Your task to perform on an android device: Add apple airpods pro to the cart on walmart.com Image 0: 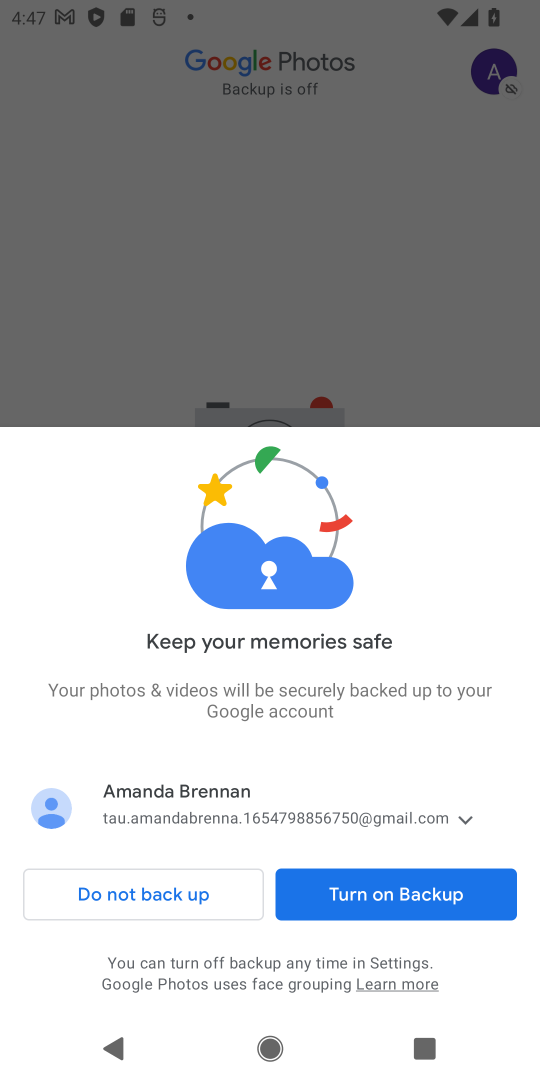
Step 0: press home button
Your task to perform on an android device: Add apple airpods pro to the cart on walmart.com Image 1: 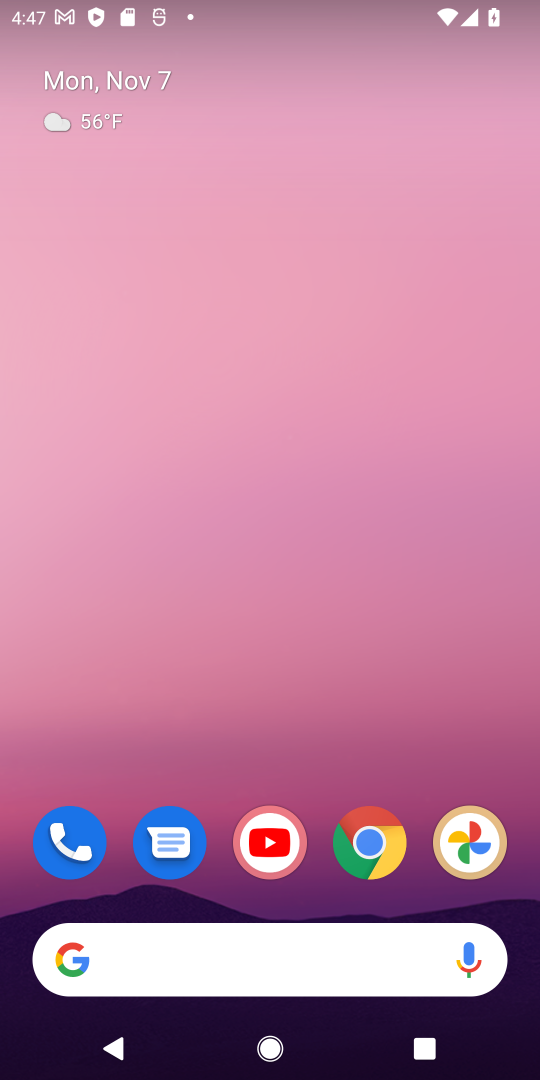
Step 1: click (372, 827)
Your task to perform on an android device: Add apple airpods pro to the cart on walmart.com Image 2: 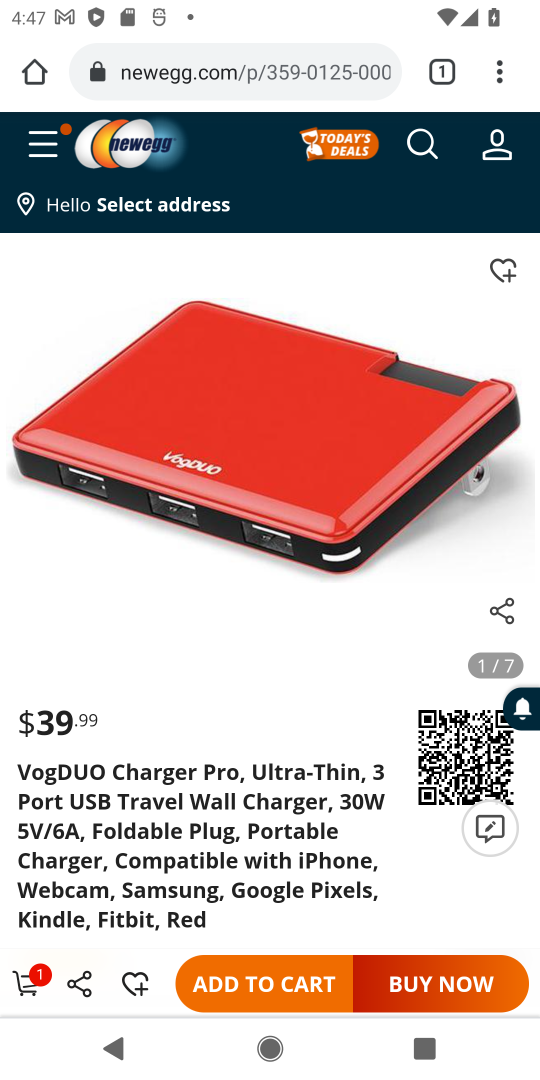
Step 2: click (282, 82)
Your task to perform on an android device: Add apple airpods pro to the cart on walmart.com Image 3: 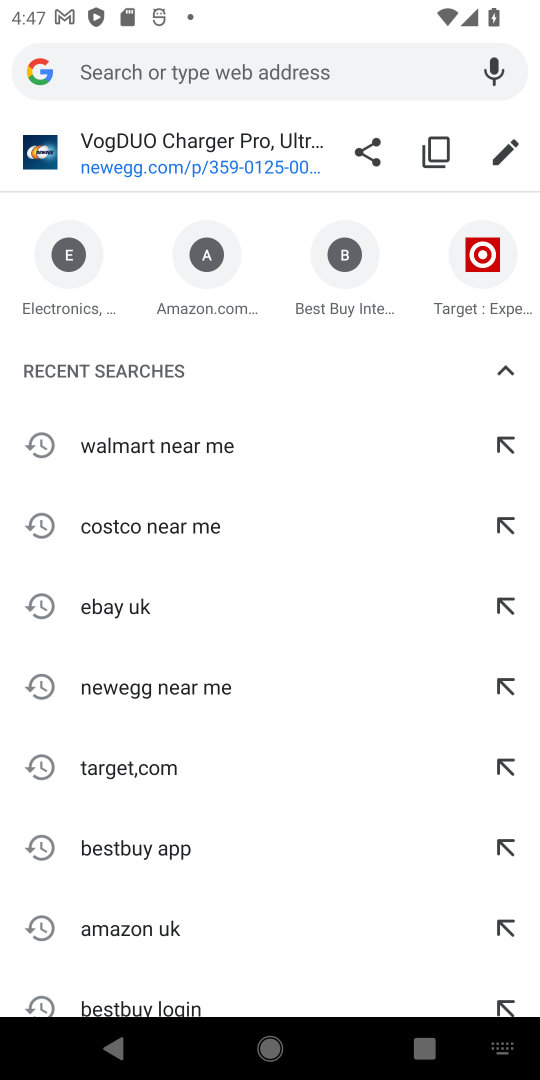
Step 3: click (94, 446)
Your task to perform on an android device: Add apple airpods pro to the cart on walmart.com Image 4: 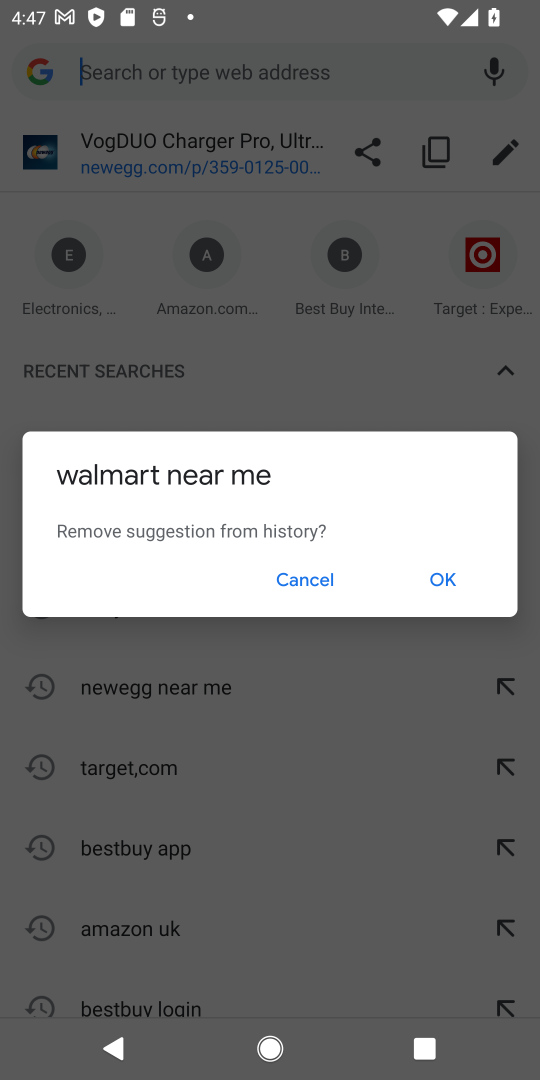
Step 4: click (326, 581)
Your task to perform on an android device: Add apple airpods pro to the cart on walmart.com Image 5: 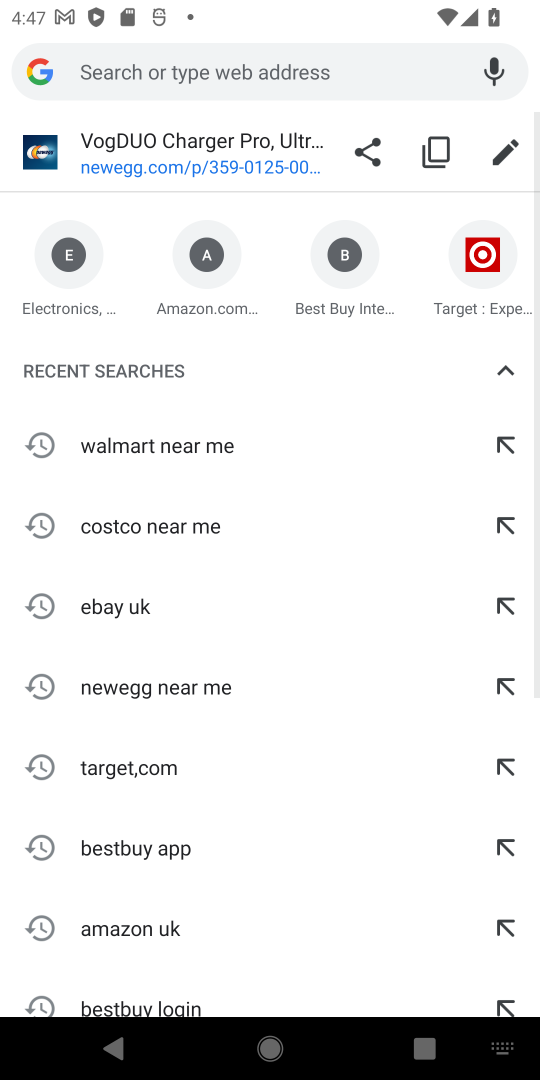
Step 5: click (152, 446)
Your task to perform on an android device: Add apple airpods pro to the cart on walmart.com Image 6: 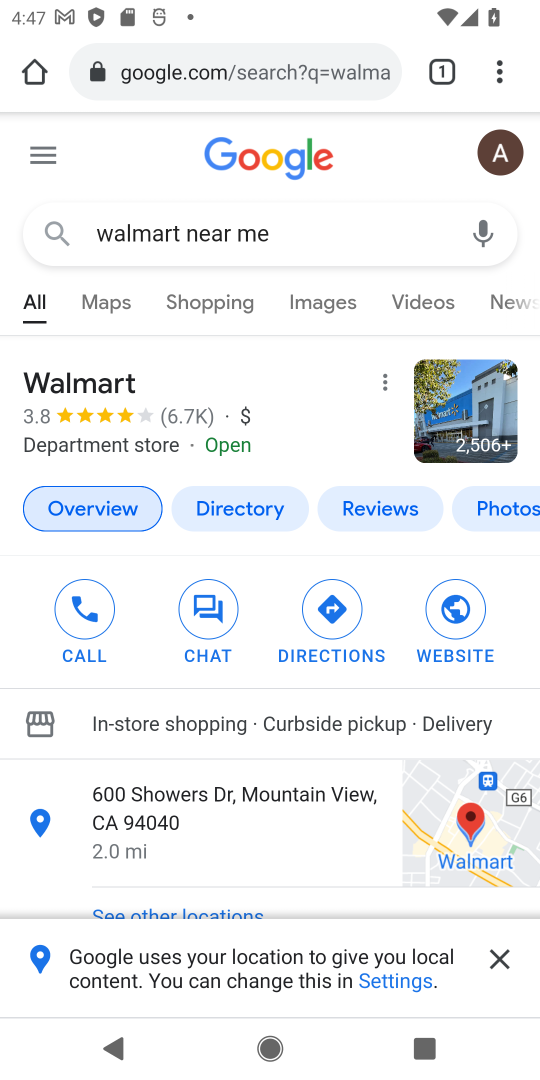
Step 6: drag from (302, 858) to (357, 91)
Your task to perform on an android device: Add apple airpods pro to the cart on walmart.com Image 7: 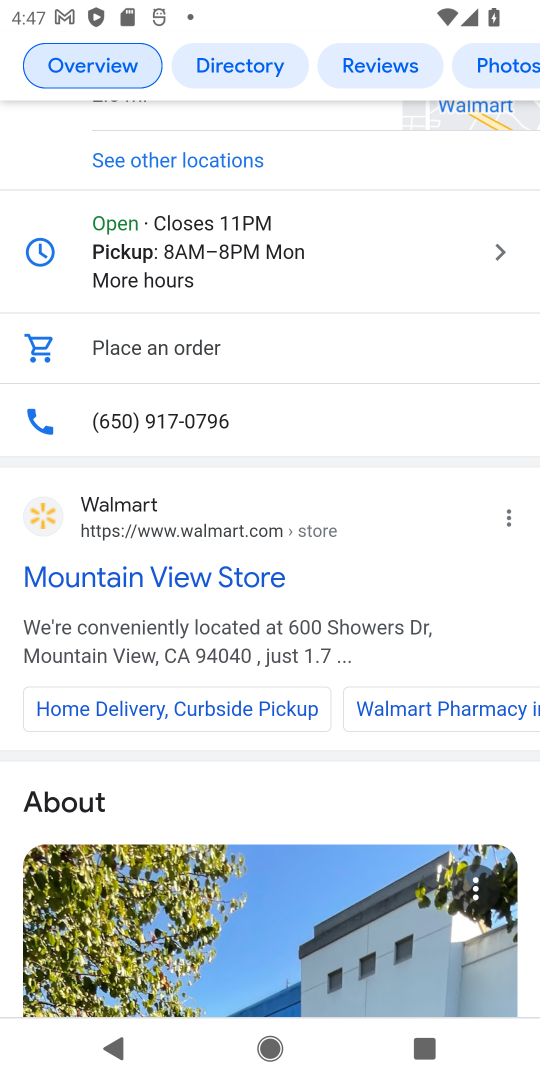
Step 7: click (121, 498)
Your task to perform on an android device: Add apple airpods pro to the cart on walmart.com Image 8: 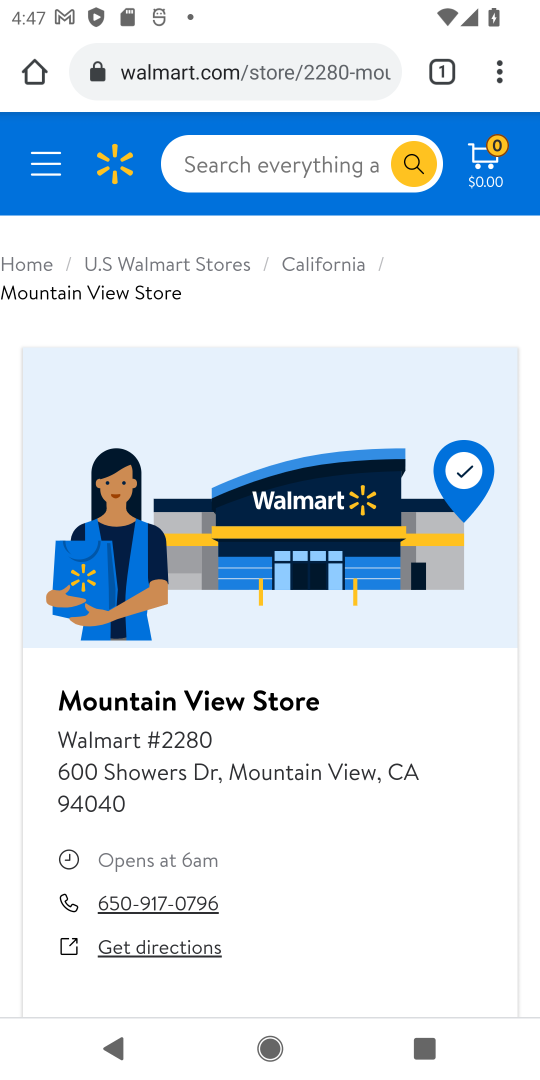
Step 8: click (312, 164)
Your task to perform on an android device: Add apple airpods pro to the cart on walmart.com Image 9: 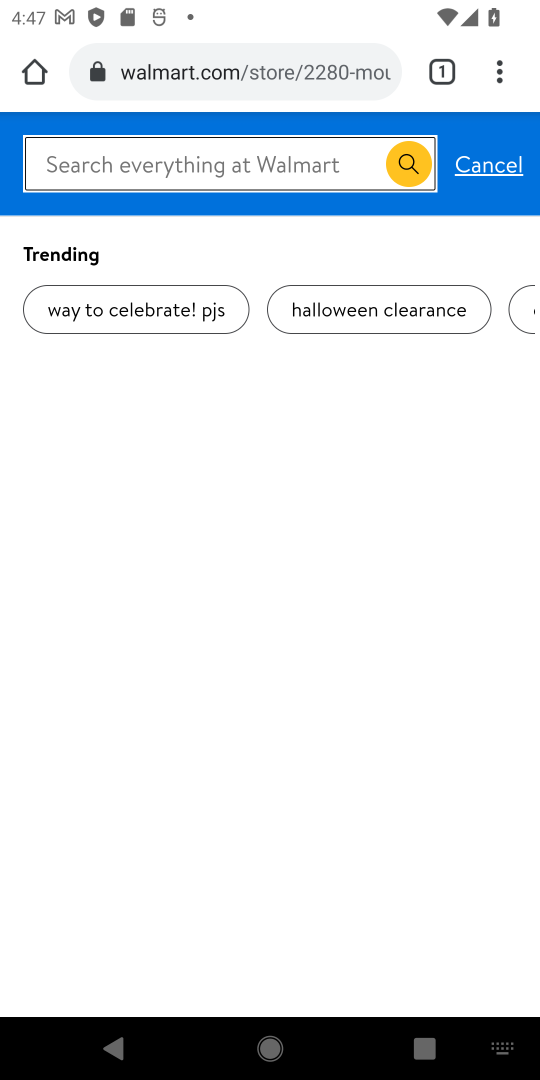
Step 9: type "apple airpods pro"
Your task to perform on an android device: Add apple airpods pro to the cart on walmart.com Image 10: 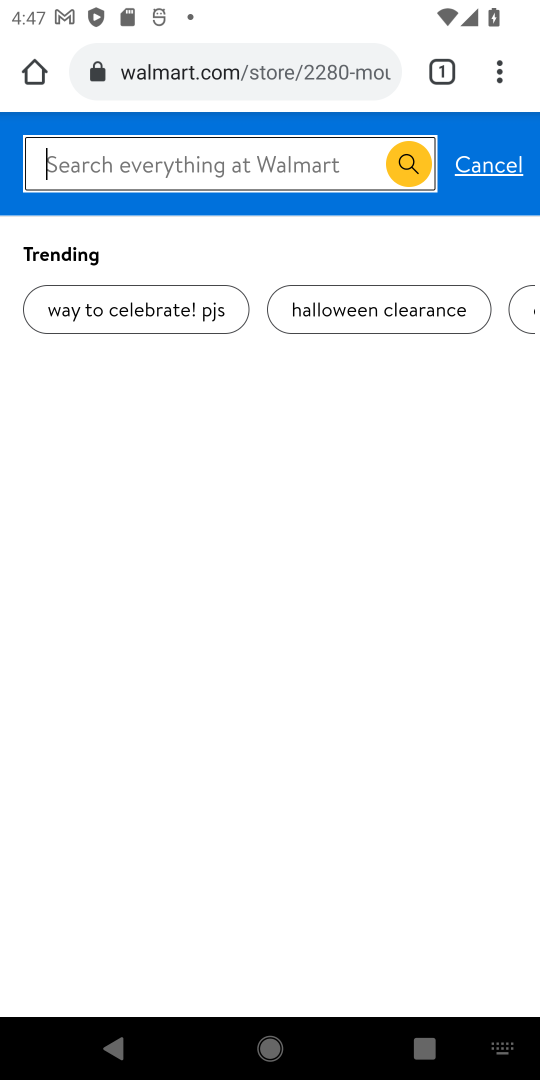
Step 10: press enter
Your task to perform on an android device: Add apple airpods pro to the cart on walmart.com Image 11: 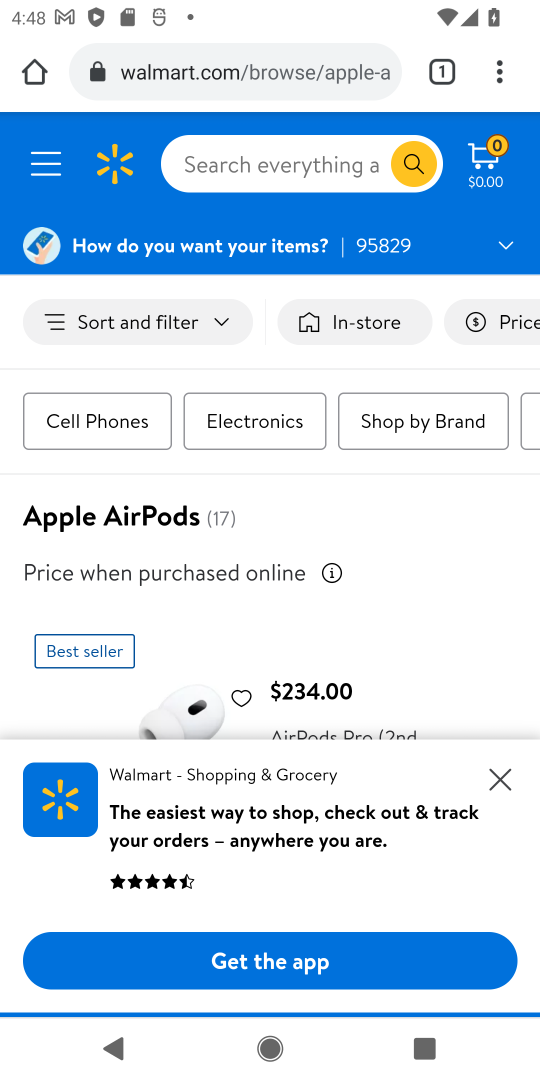
Step 11: click (512, 774)
Your task to perform on an android device: Add apple airpods pro to the cart on walmart.com Image 12: 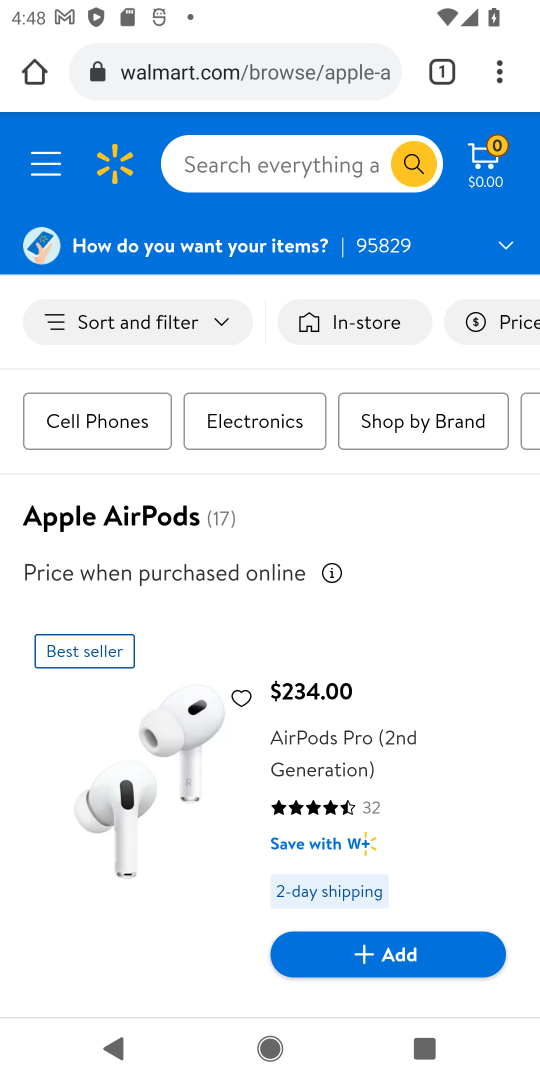
Step 12: drag from (380, 820) to (488, 617)
Your task to perform on an android device: Add apple airpods pro to the cart on walmart.com Image 13: 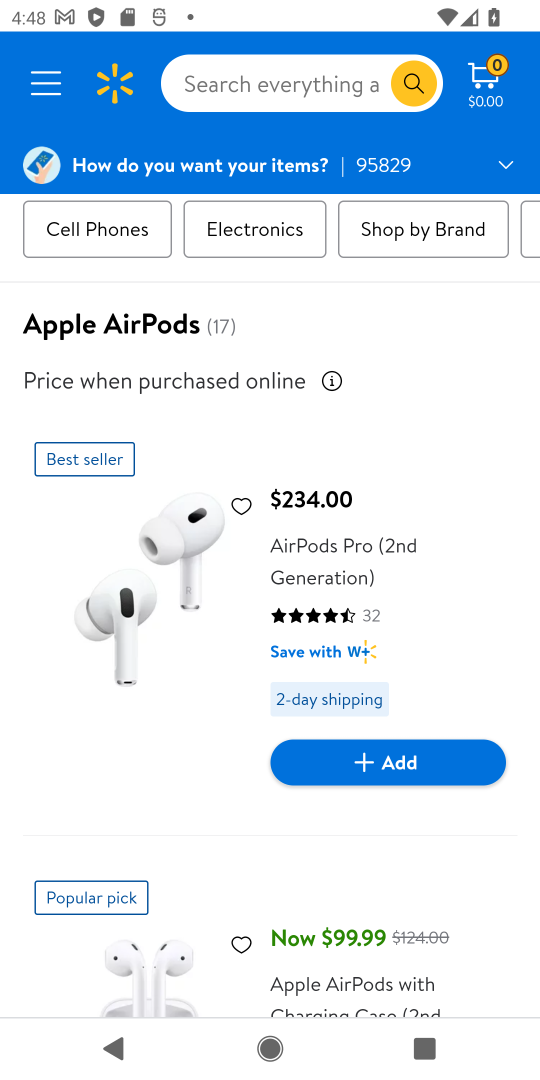
Step 13: click (402, 762)
Your task to perform on an android device: Add apple airpods pro to the cart on walmart.com Image 14: 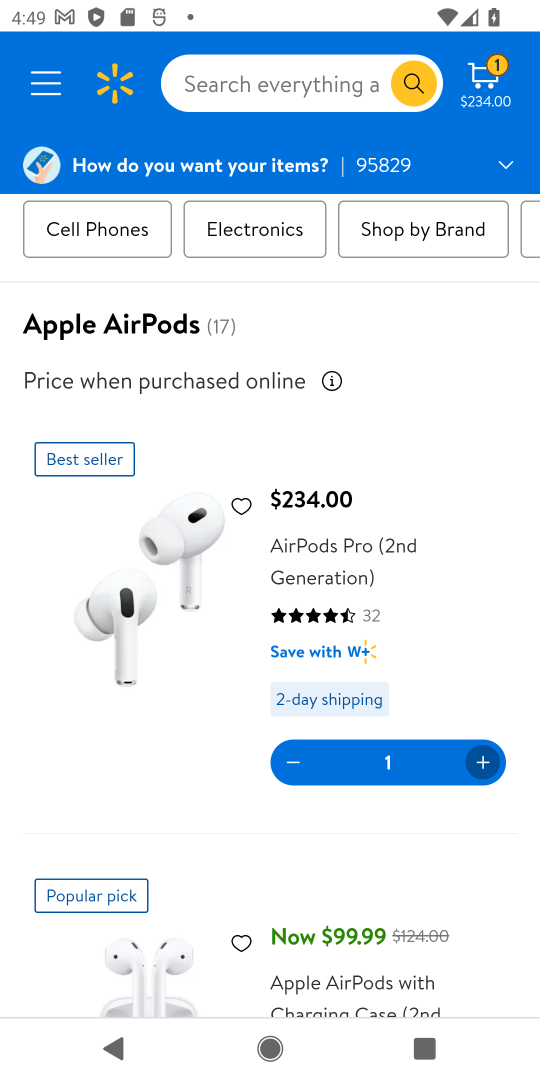
Step 14: click (481, 74)
Your task to perform on an android device: Add apple airpods pro to the cart on walmart.com Image 15: 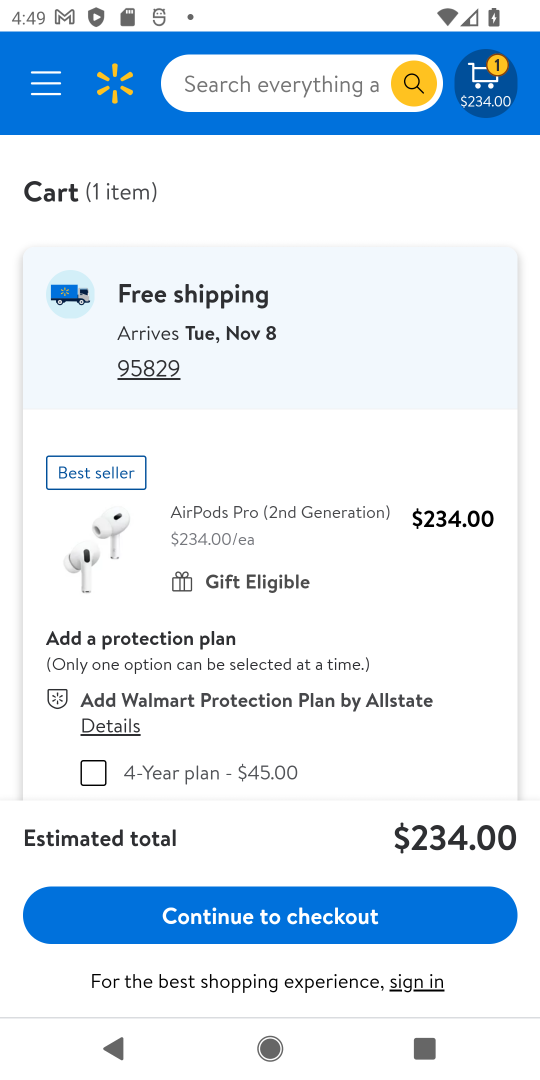
Step 15: task complete